Your task to perform on an android device: set the timer Image 0: 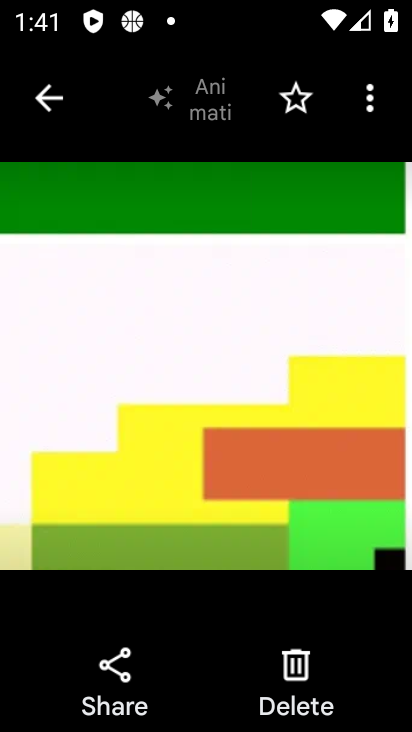
Step 0: press back button
Your task to perform on an android device: set the timer Image 1: 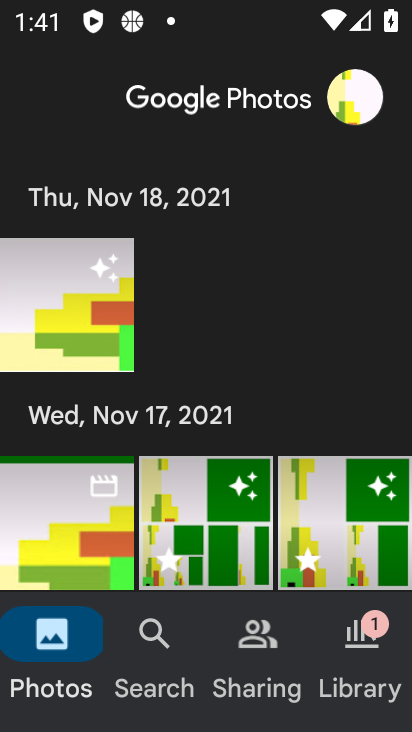
Step 1: press back button
Your task to perform on an android device: set the timer Image 2: 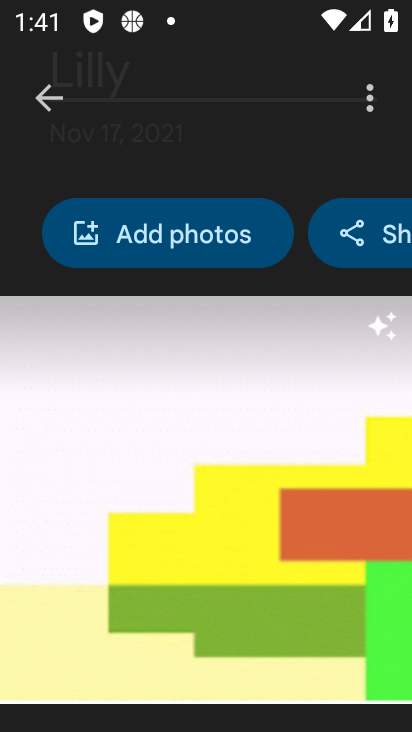
Step 2: press back button
Your task to perform on an android device: set the timer Image 3: 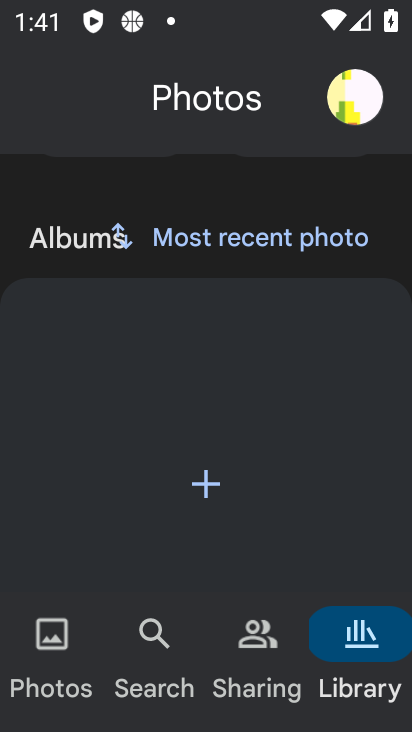
Step 3: press back button
Your task to perform on an android device: set the timer Image 4: 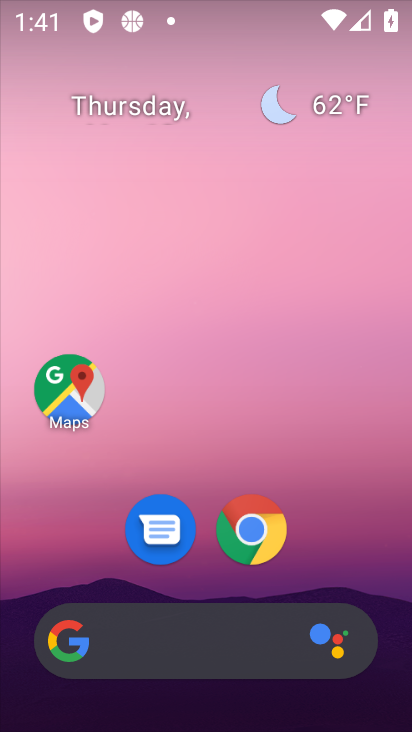
Step 4: drag from (343, 560) to (228, 124)
Your task to perform on an android device: set the timer Image 5: 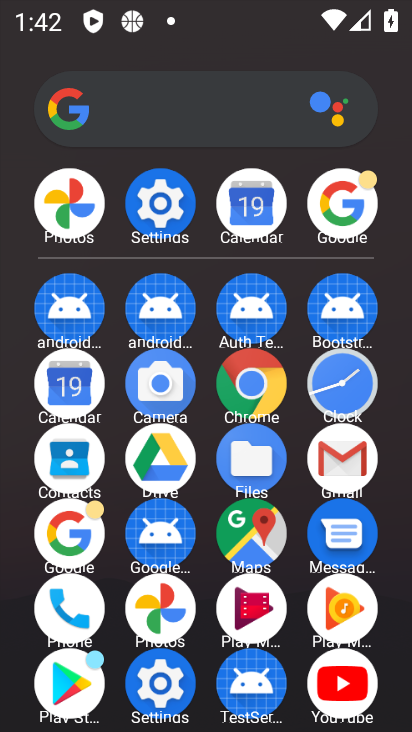
Step 5: click (341, 381)
Your task to perform on an android device: set the timer Image 6: 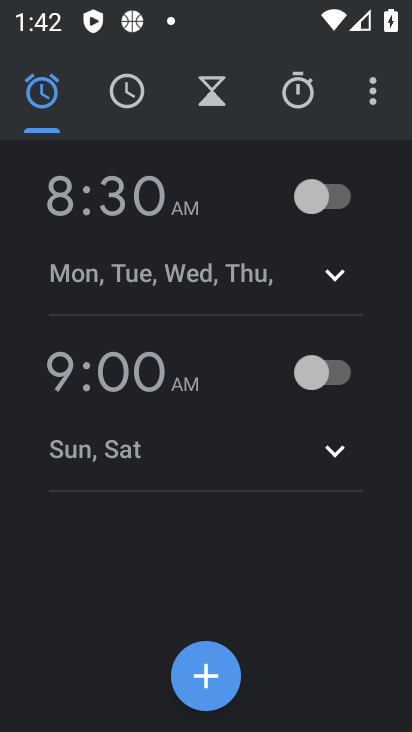
Step 6: click (213, 104)
Your task to perform on an android device: set the timer Image 7: 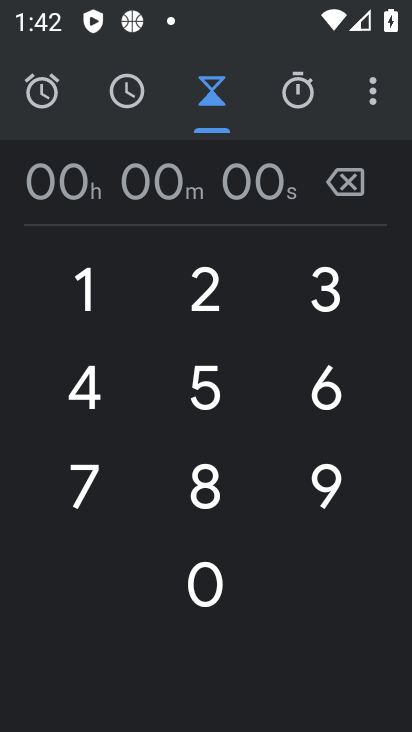
Step 7: type "1234"
Your task to perform on an android device: set the timer Image 8: 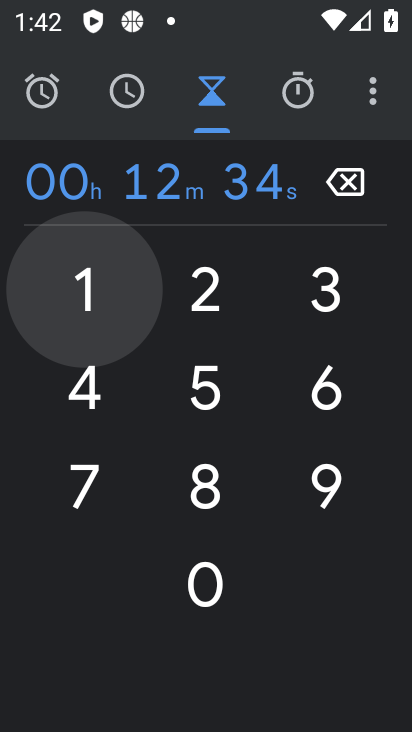
Step 8: type ""
Your task to perform on an android device: set the timer Image 9: 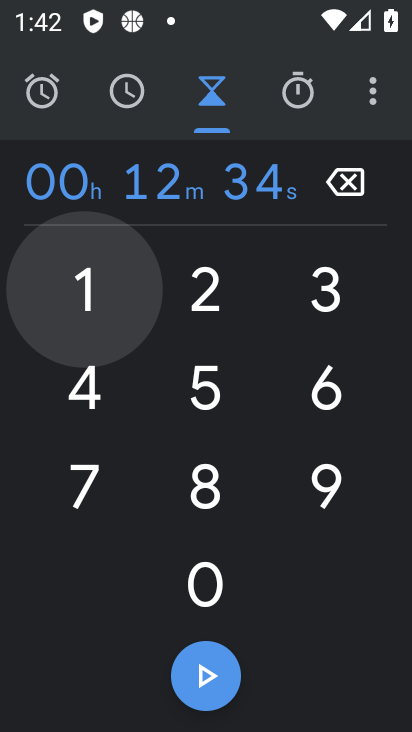
Step 9: click (206, 681)
Your task to perform on an android device: set the timer Image 10: 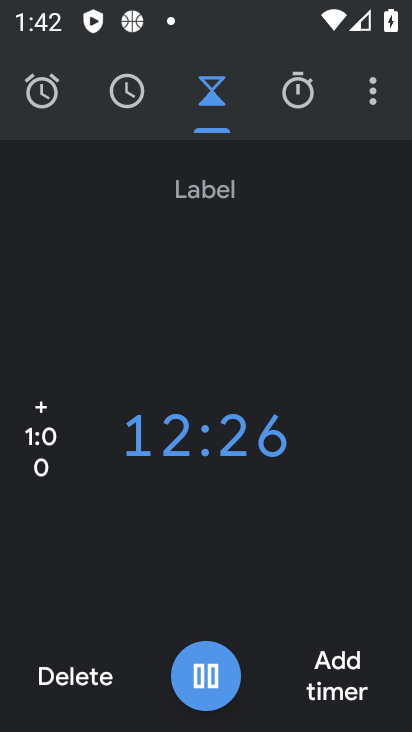
Step 10: click (205, 677)
Your task to perform on an android device: set the timer Image 11: 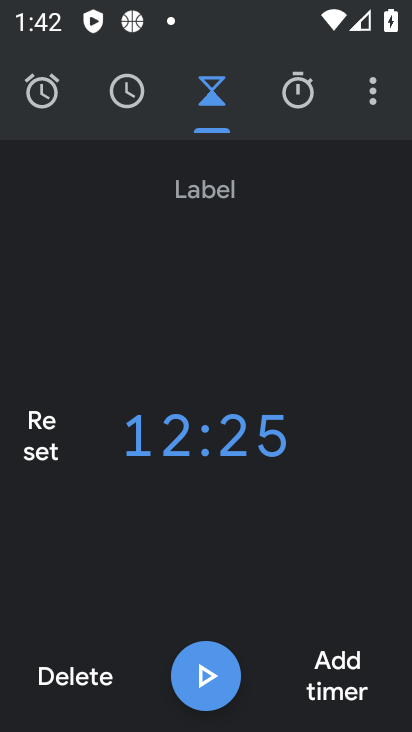
Step 11: task complete